Your task to perform on an android device: turn off location Image 0: 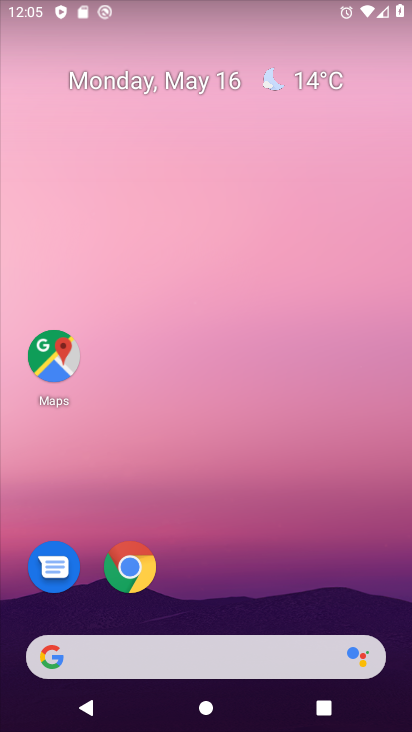
Step 0: drag from (200, 606) to (276, 0)
Your task to perform on an android device: turn off location Image 1: 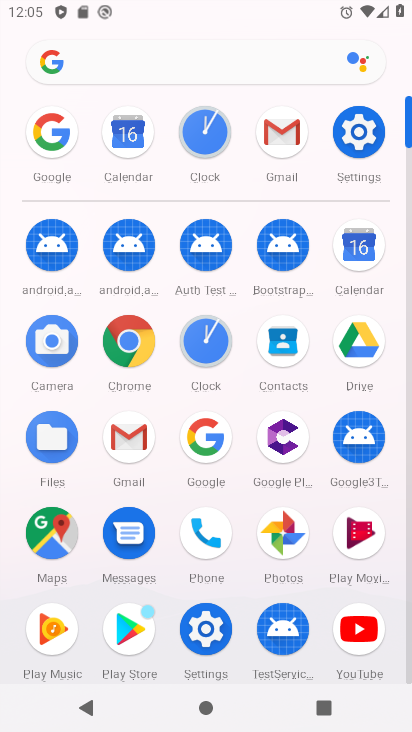
Step 1: click (362, 147)
Your task to perform on an android device: turn off location Image 2: 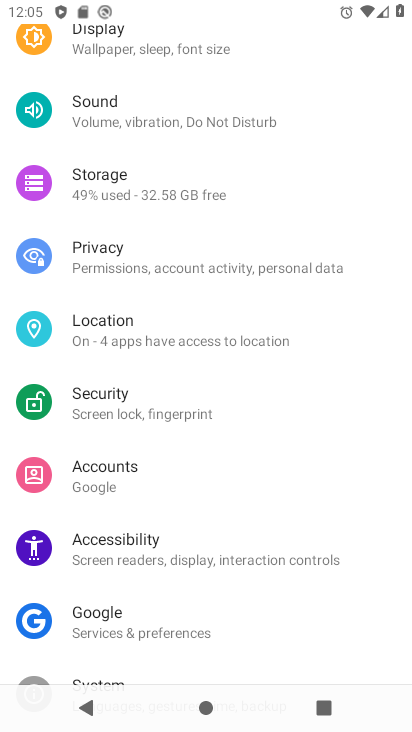
Step 2: click (175, 312)
Your task to perform on an android device: turn off location Image 3: 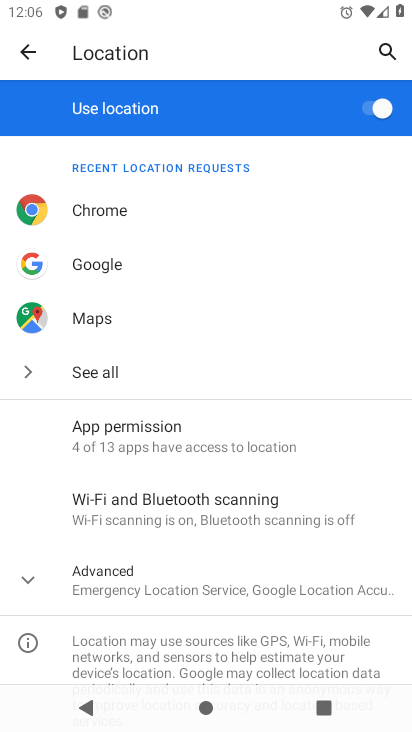
Step 3: click (347, 114)
Your task to perform on an android device: turn off location Image 4: 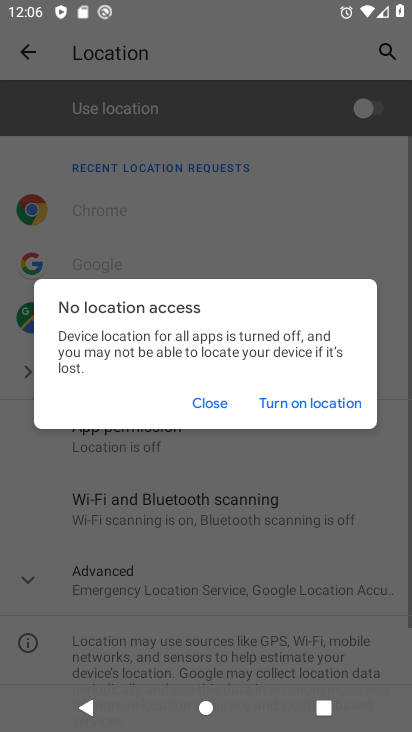
Step 4: task complete